Your task to perform on an android device: open the mobile data screen to see how much data has been used Image 0: 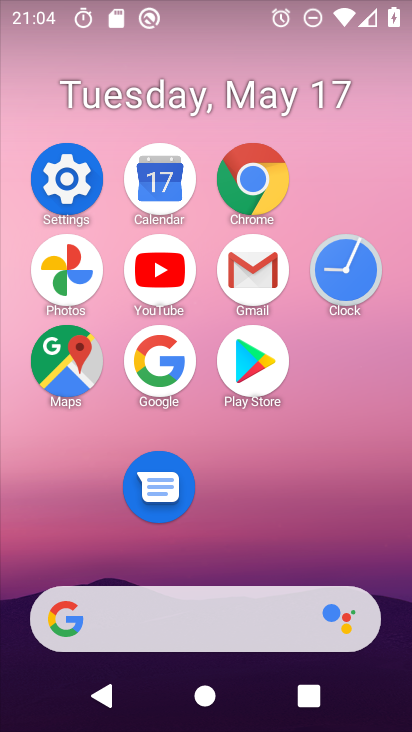
Step 0: click (39, 186)
Your task to perform on an android device: open the mobile data screen to see how much data has been used Image 1: 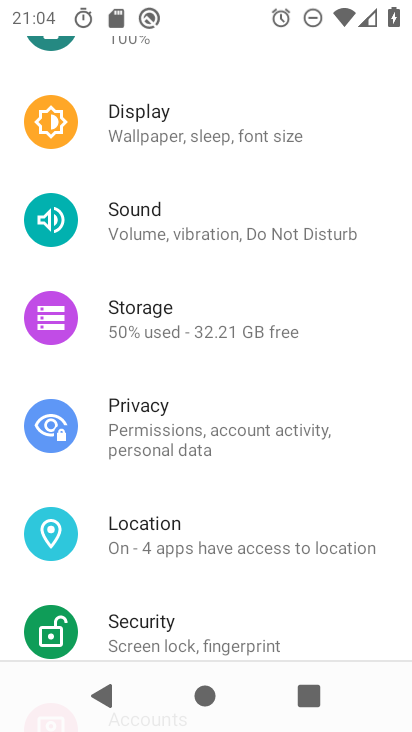
Step 1: drag from (259, 161) to (253, 521)
Your task to perform on an android device: open the mobile data screen to see how much data has been used Image 2: 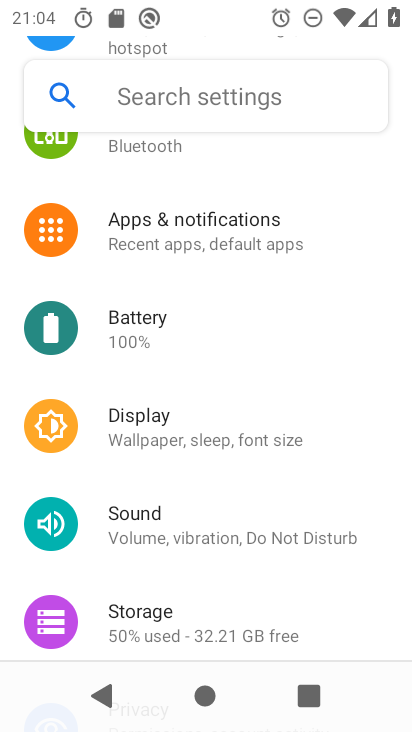
Step 2: drag from (335, 196) to (305, 479)
Your task to perform on an android device: open the mobile data screen to see how much data has been used Image 3: 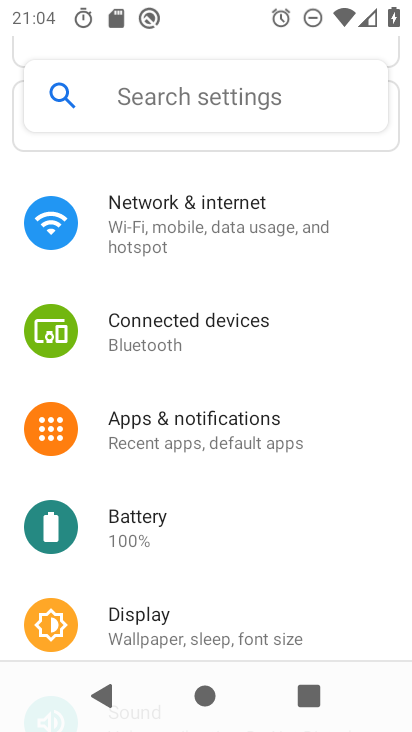
Step 3: click (237, 228)
Your task to perform on an android device: open the mobile data screen to see how much data has been used Image 4: 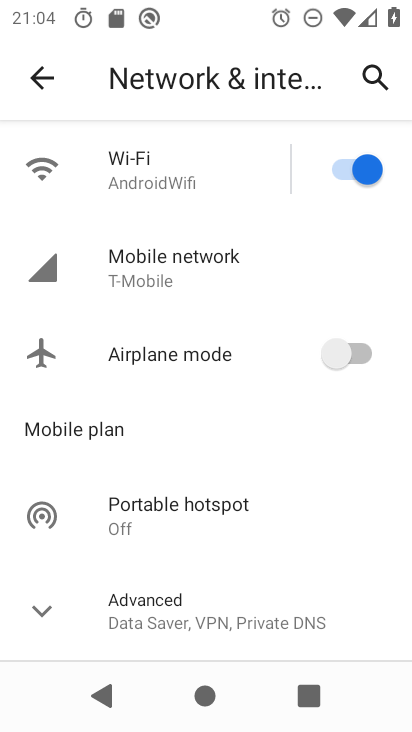
Step 4: click (228, 258)
Your task to perform on an android device: open the mobile data screen to see how much data has been used Image 5: 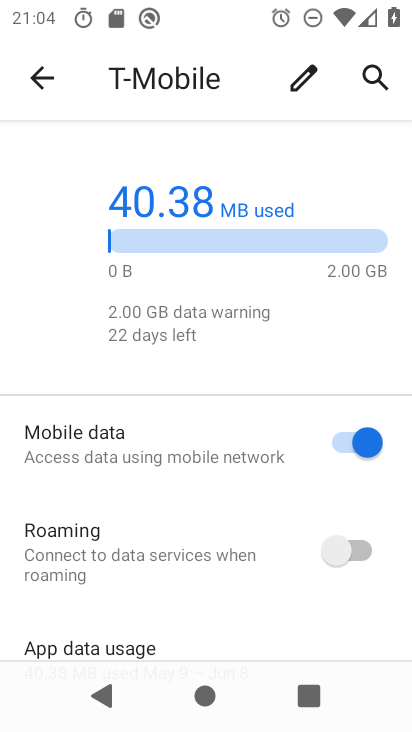
Step 5: task complete